Your task to perform on an android device: open wifi settings Image 0: 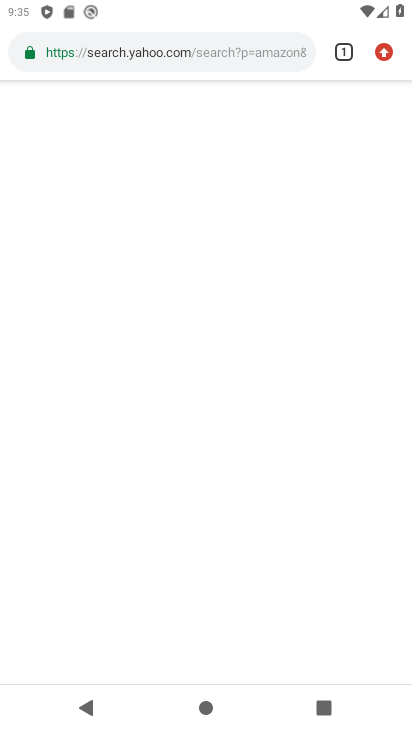
Step 0: press home button
Your task to perform on an android device: open wifi settings Image 1: 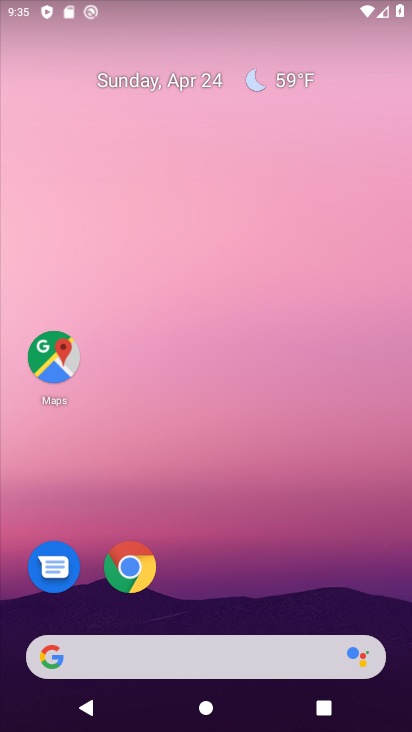
Step 1: drag from (378, 608) to (322, 227)
Your task to perform on an android device: open wifi settings Image 2: 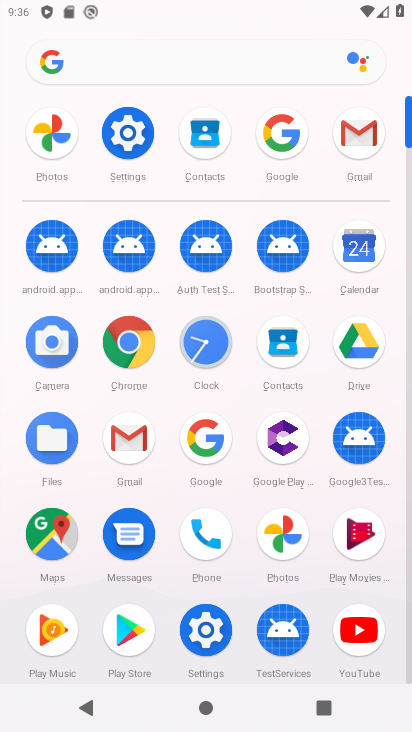
Step 2: click (127, 138)
Your task to perform on an android device: open wifi settings Image 3: 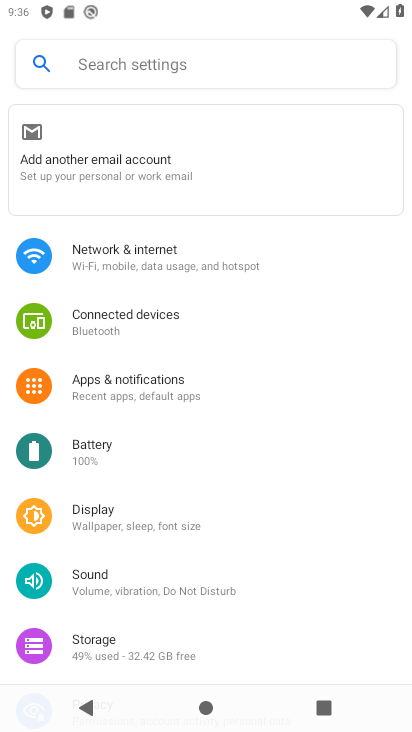
Step 3: click (115, 254)
Your task to perform on an android device: open wifi settings Image 4: 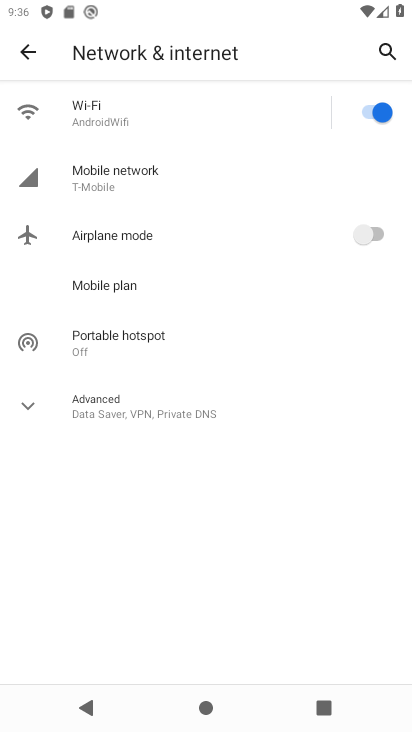
Step 4: task complete